Your task to perform on an android device: turn off improve location accuracy Image 0: 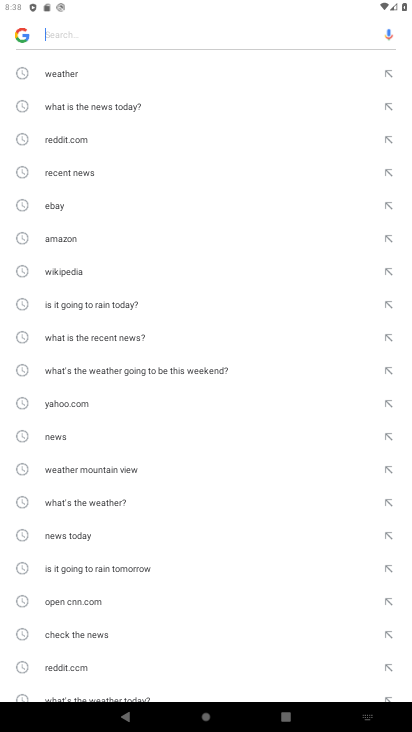
Step 0: press home button
Your task to perform on an android device: turn off improve location accuracy Image 1: 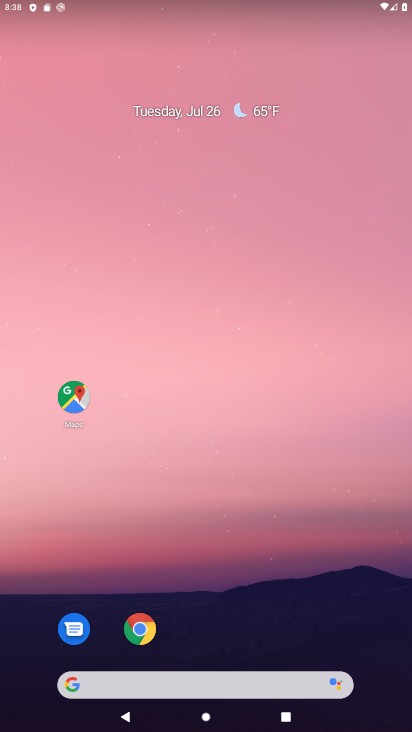
Step 1: drag from (319, 581) to (292, 24)
Your task to perform on an android device: turn off improve location accuracy Image 2: 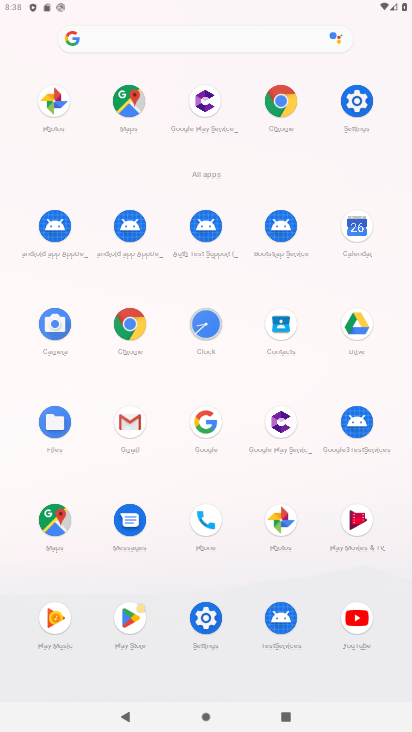
Step 2: click (352, 107)
Your task to perform on an android device: turn off improve location accuracy Image 3: 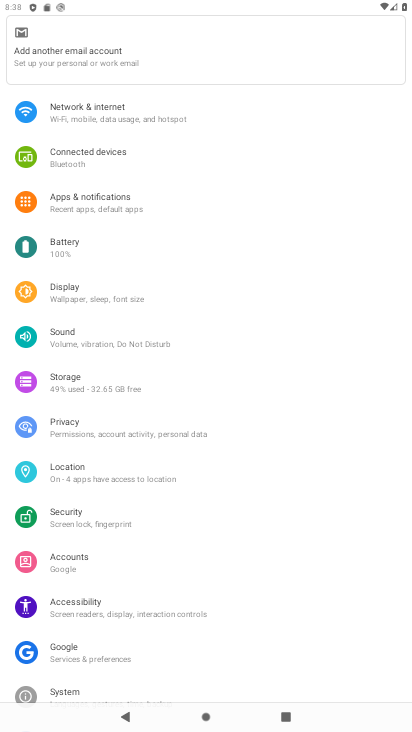
Step 3: click (114, 478)
Your task to perform on an android device: turn off improve location accuracy Image 4: 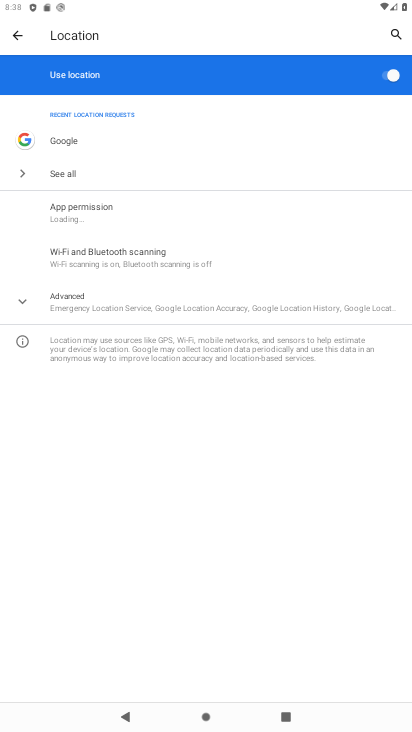
Step 4: click (74, 298)
Your task to perform on an android device: turn off improve location accuracy Image 5: 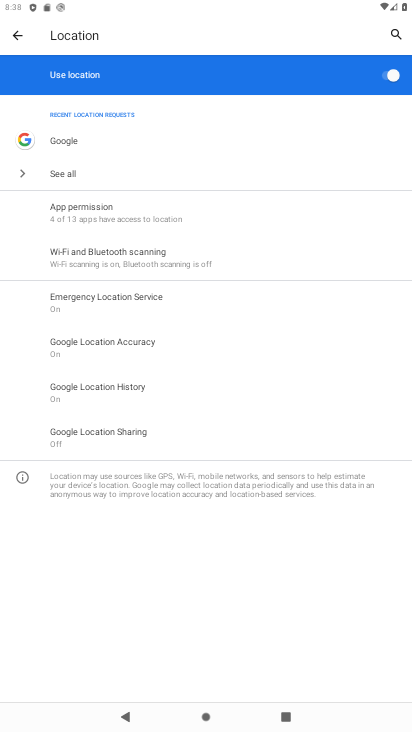
Step 5: click (94, 352)
Your task to perform on an android device: turn off improve location accuracy Image 6: 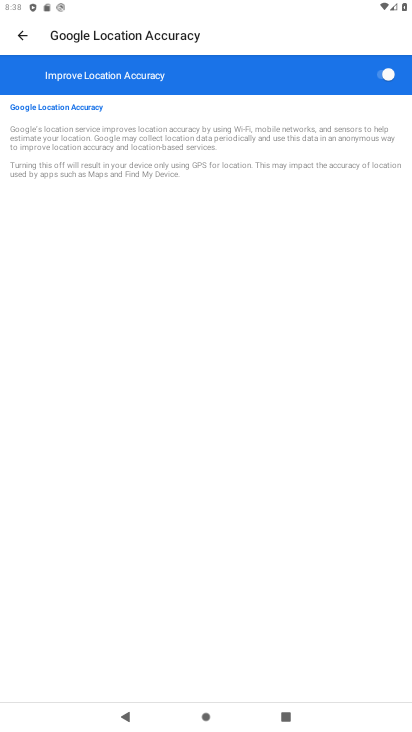
Step 6: click (378, 72)
Your task to perform on an android device: turn off improve location accuracy Image 7: 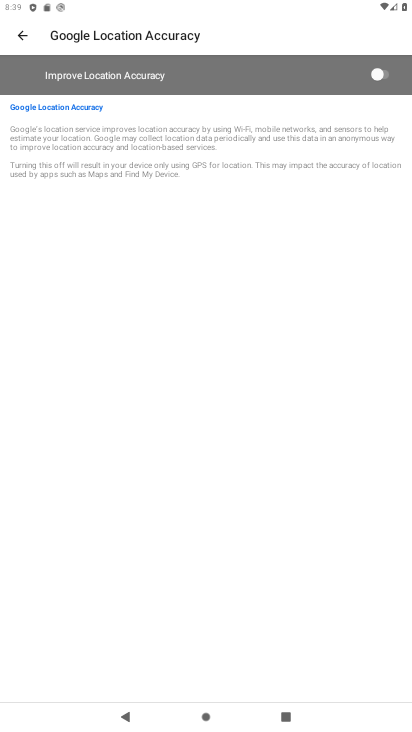
Step 7: task complete